Your task to perform on an android device: Open notification settings Image 0: 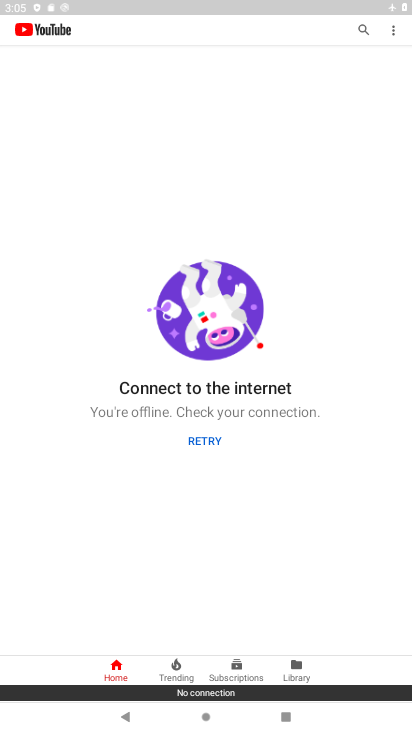
Step 0: press home button
Your task to perform on an android device: Open notification settings Image 1: 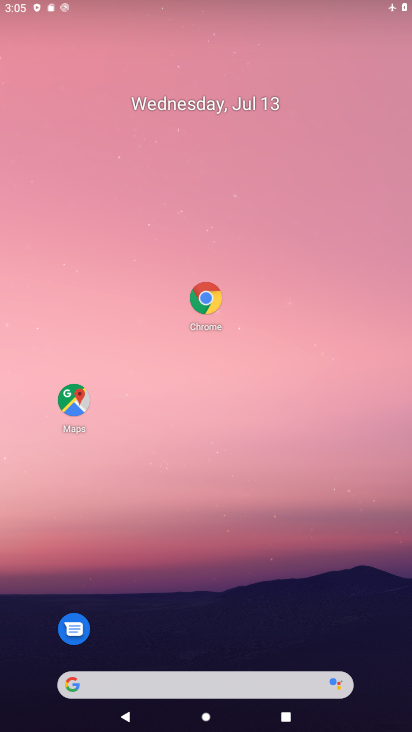
Step 1: drag from (231, 621) to (232, 219)
Your task to perform on an android device: Open notification settings Image 2: 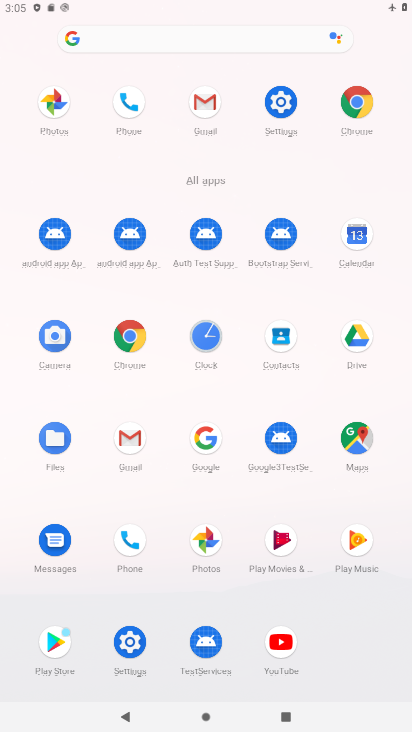
Step 2: click (285, 87)
Your task to perform on an android device: Open notification settings Image 3: 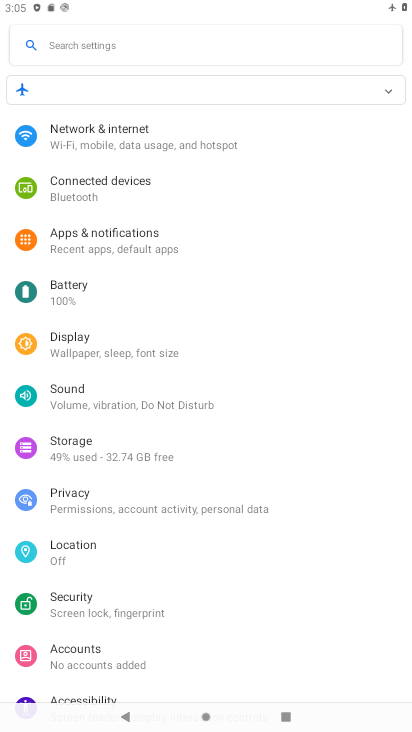
Step 3: click (140, 228)
Your task to perform on an android device: Open notification settings Image 4: 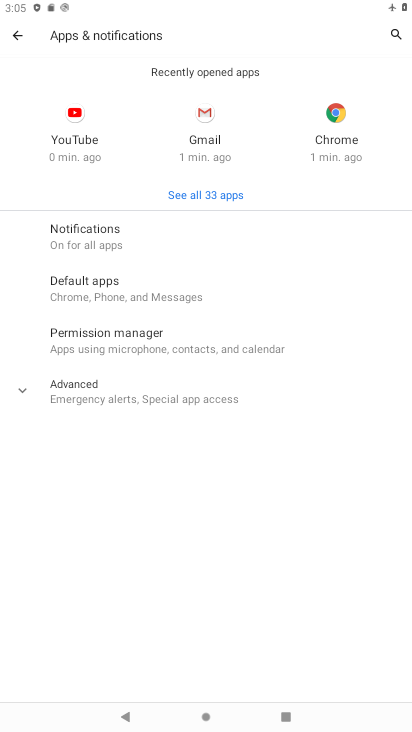
Step 4: click (130, 232)
Your task to perform on an android device: Open notification settings Image 5: 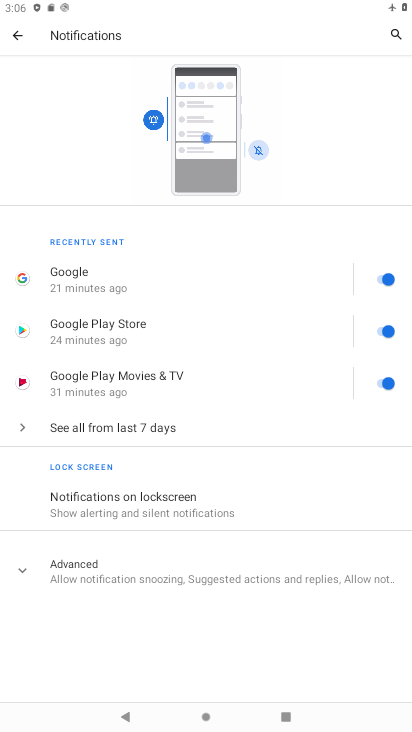
Step 5: task complete